Your task to perform on an android device: Search for seafood restaurants on Google Maps Image 0: 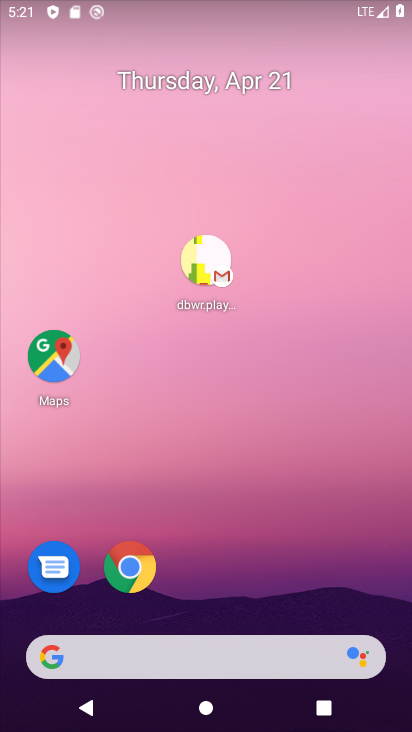
Step 0: click (57, 354)
Your task to perform on an android device: Search for seafood restaurants on Google Maps Image 1: 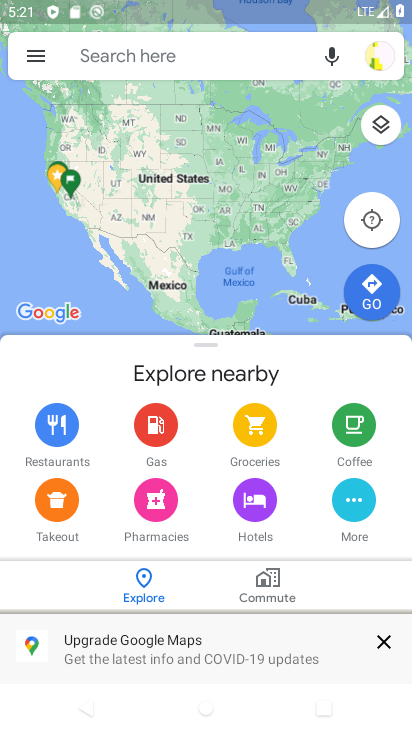
Step 1: click (162, 53)
Your task to perform on an android device: Search for seafood restaurants on Google Maps Image 2: 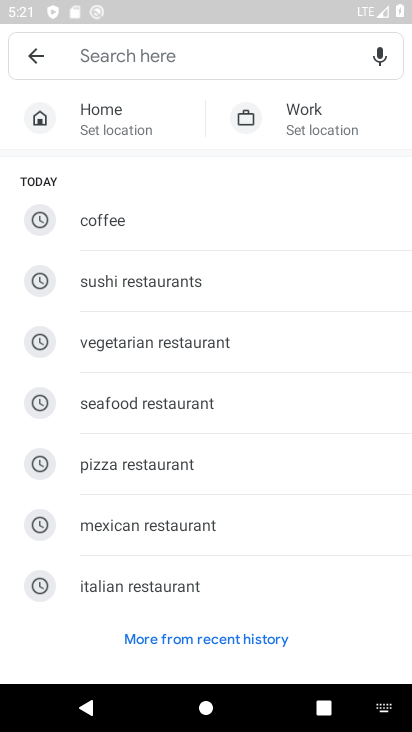
Step 2: type "seafood restaurants"
Your task to perform on an android device: Search for seafood restaurants on Google Maps Image 3: 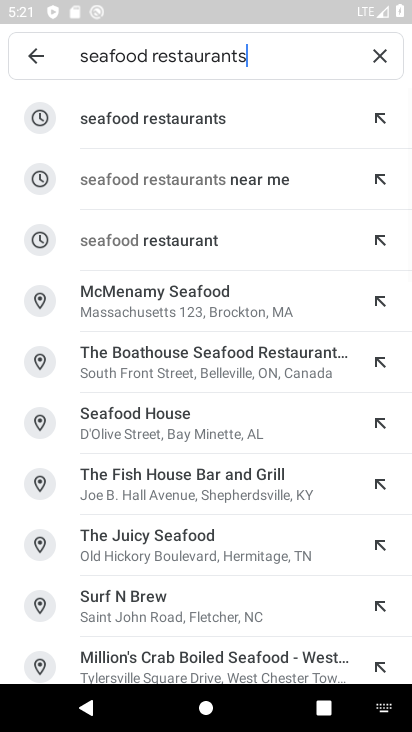
Step 3: click (180, 125)
Your task to perform on an android device: Search for seafood restaurants on Google Maps Image 4: 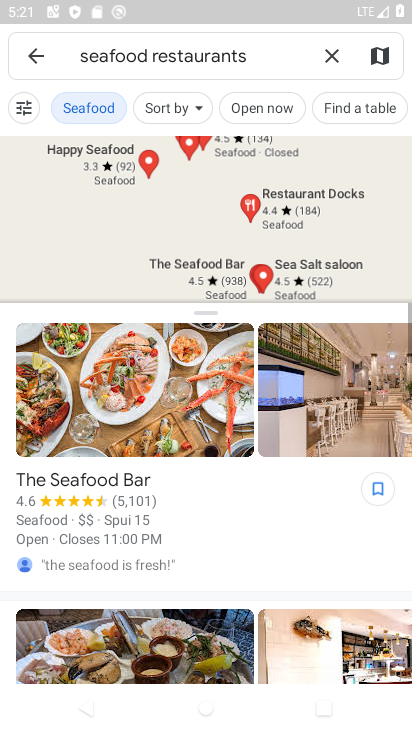
Step 4: task complete